Your task to perform on an android device: Open notification settings Image 0: 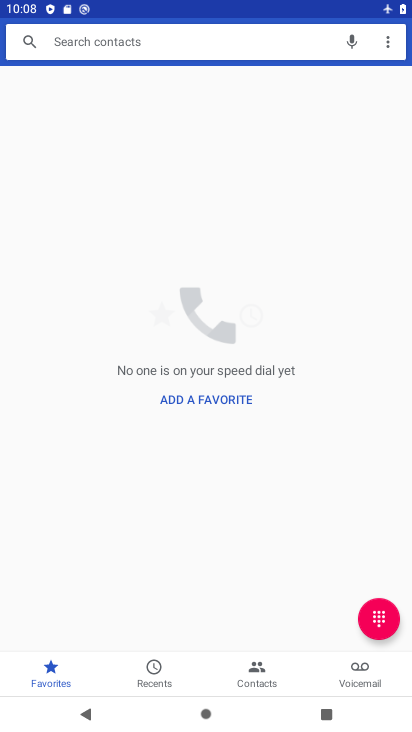
Step 0: press home button
Your task to perform on an android device: Open notification settings Image 1: 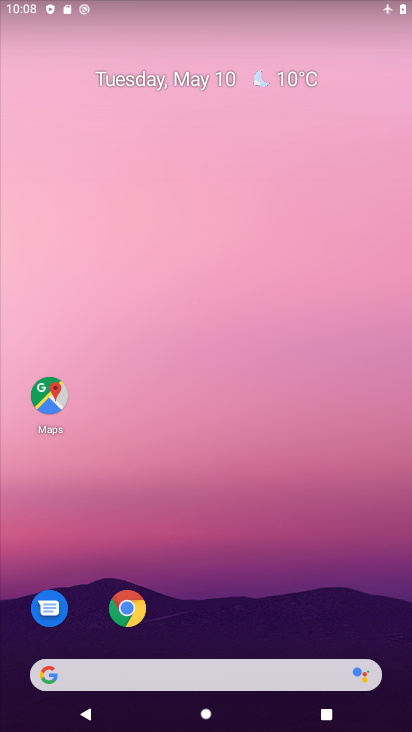
Step 1: drag from (217, 618) to (333, 31)
Your task to perform on an android device: Open notification settings Image 2: 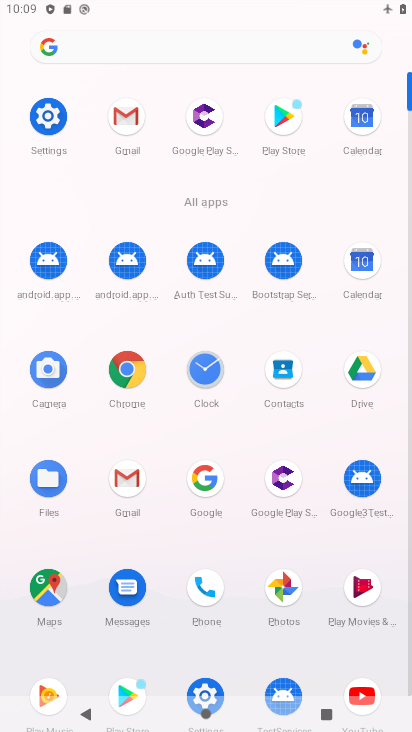
Step 2: click (49, 112)
Your task to perform on an android device: Open notification settings Image 3: 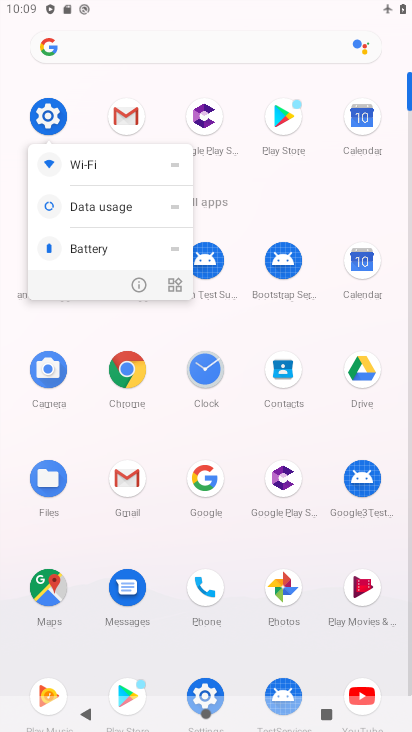
Step 3: click (49, 112)
Your task to perform on an android device: Open notification settings Image 4: 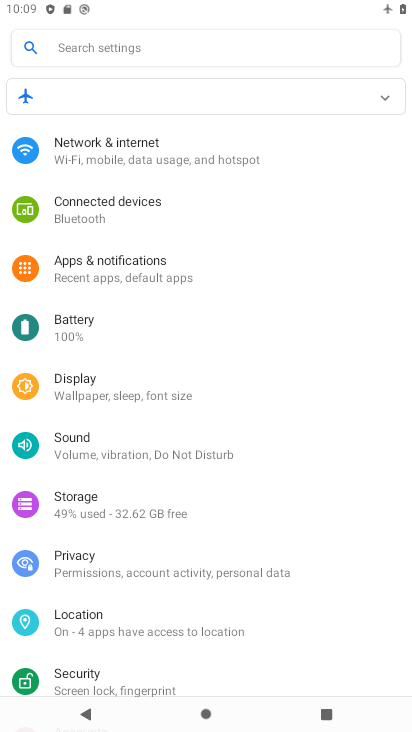
Step 4: click (123, 279)
Your task to perform on an android device: Open notification settings Image 5: 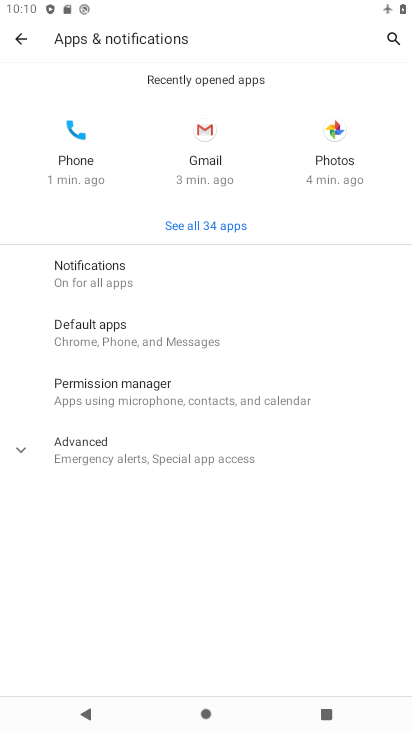
Step 5: click (89, 267)
Your task to perform on an android device: Open notification settings Image 6: 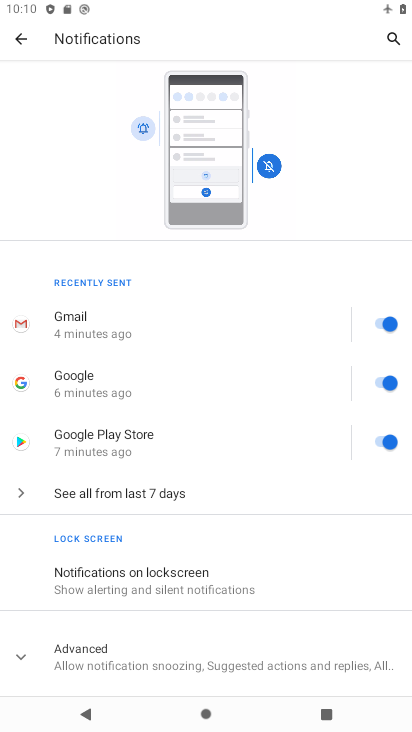
Step 6: task complete